Your task to perform on an android device: Open display settings Image 0: 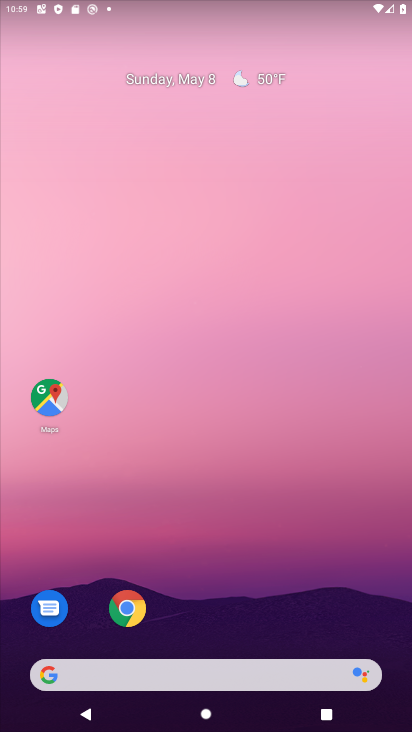
Step 0: drag from (315, 365) to (246, 109)
Your task to perform on an android device: Open display settings Image 1: 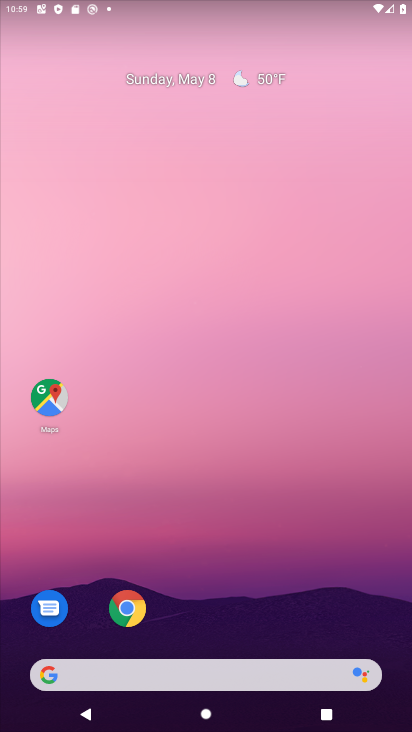
Step 1: drag from (354, 595) to (250, 0)
Your task to perform on an android device: Open display settings Image 2: 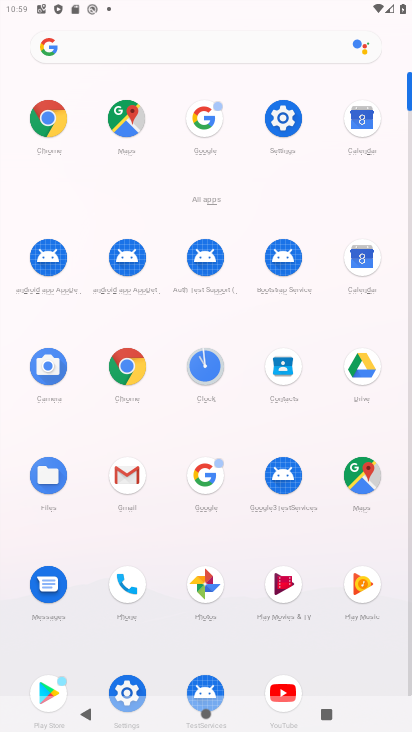
Step 2: click (284, 131)
Your task to perform on an android device: Open display settings Image 3: 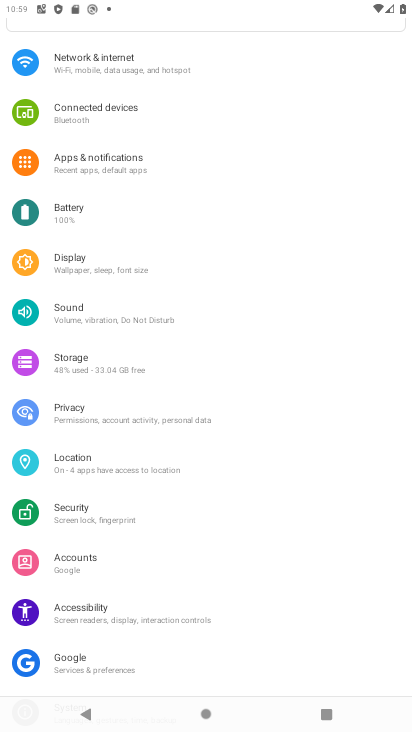
Step 3: click (68, 252)
Your task to perform on an android device: Open display settings Image 4: 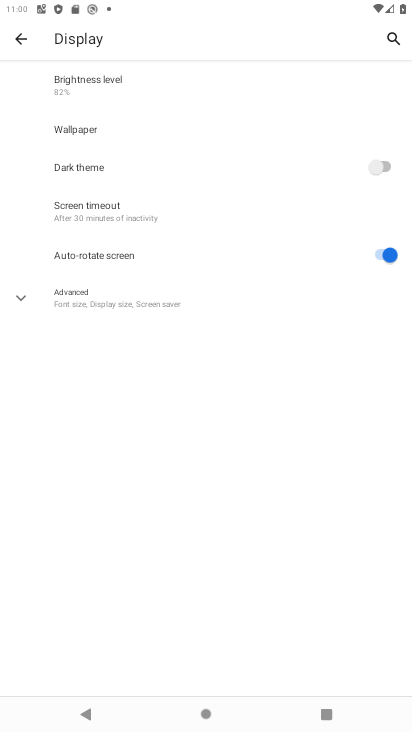
Step 4: task complete